Your task to perform on an android device: all mails in gmail Image 0: 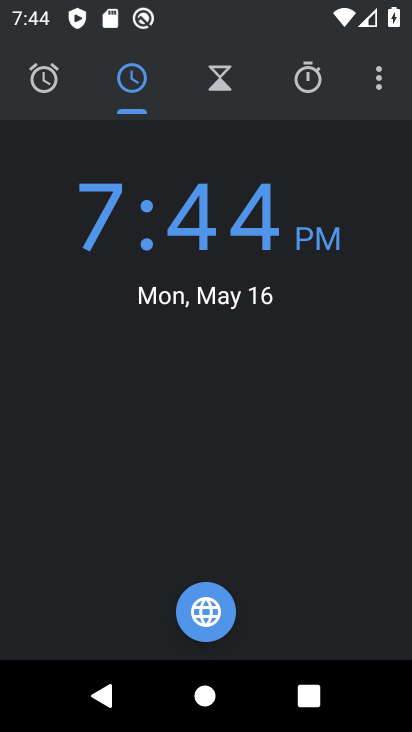
Step 0: press home button
Your task to perform on an android device: all mails in gmail Image 1: 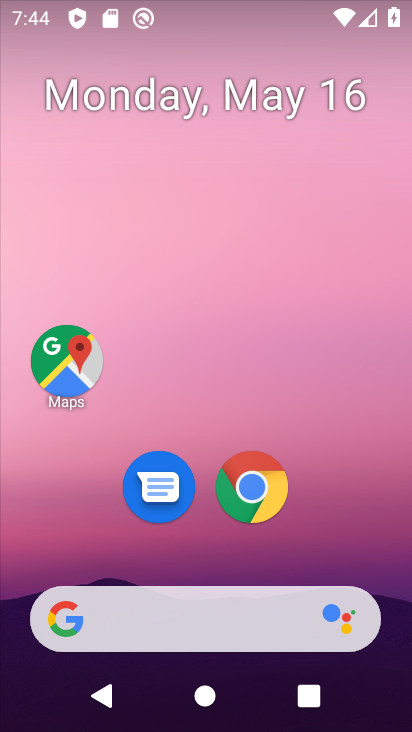
Step 1: drag from (239, 410) to (212, 63)
Your task to perform on an android device: all mails in gmail Image 2: 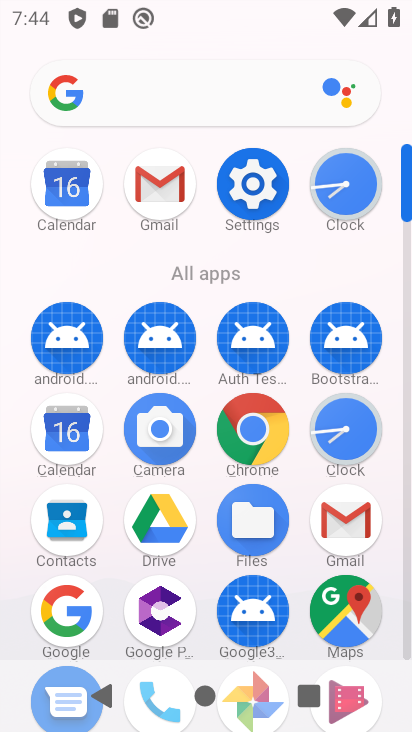
Step 2: click (168, 190)
Your task to perform on an android device: all mails in gmail Image 3: 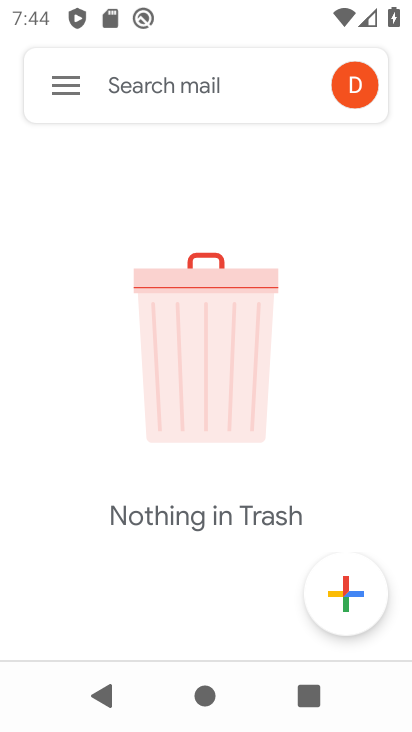
Step 3: click (76, 87)
Your task to perform on an android device: all mails in gmail Image 4: 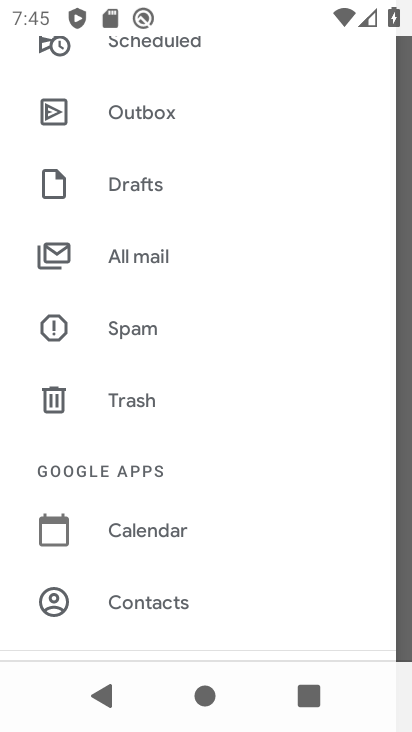
Step 4: click (134, 255)
Your task to perform on an android device: all mails in gmail Image 5: 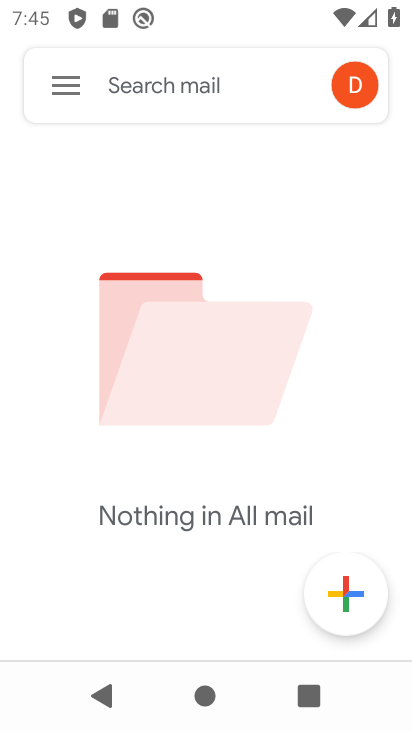
Step 5: task complete